Your task to perform on an android device: Go to sound settings Image 0: 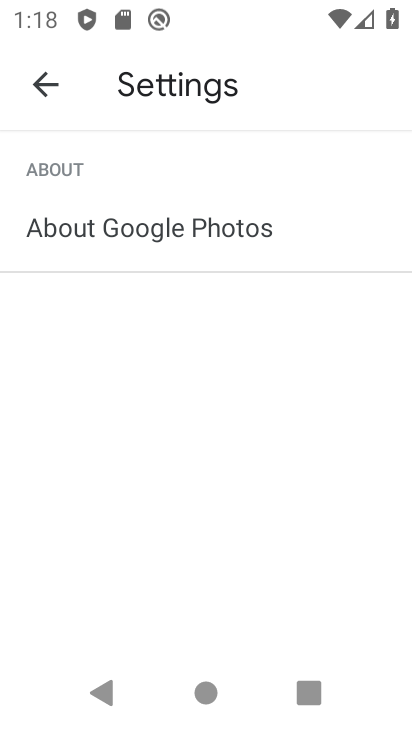
Step 0: press home button
Your task to perform on an android device: Go to sound settings Image 1: 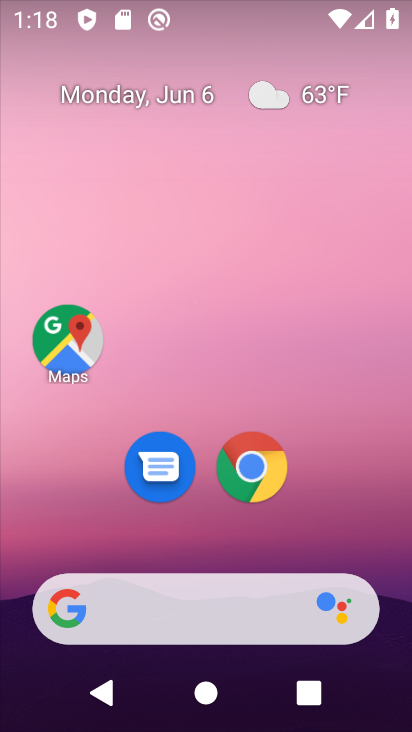
Step 1: drag from (395, 633) to (258, 73)
Your task to perform on an android device: Go to sound settings Image 2: 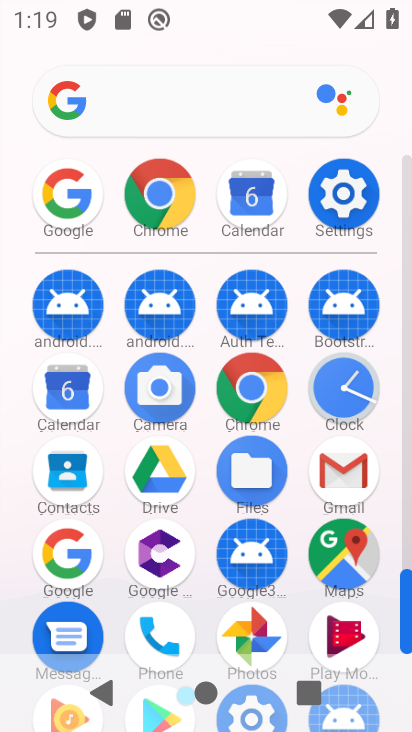
Step 2: click (342, 205)
Your task to perform on an android device: Go to sound settings Image 3: 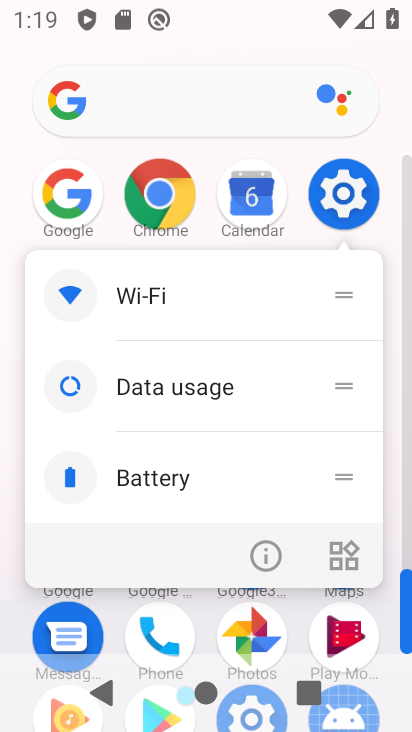
Step 3: click (320, 197)
Your task to perform on an android device: Go to sound settings Image 4: 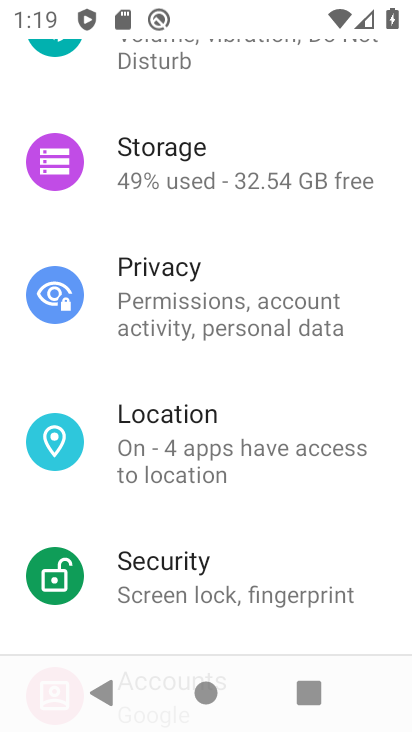
Step 4: drag from (231, 131) to (242, 533)
Your task to perform on an android device: Go to sound settings Image 5: 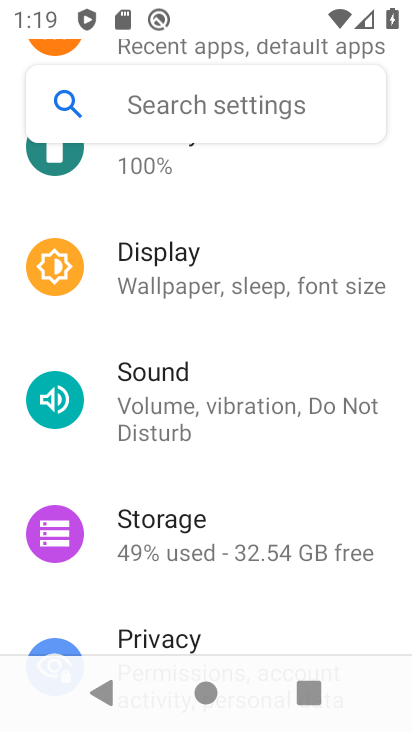
Step 5: click (228, 407)
Your task to perform on an android device: Go to sound settings Image 6: 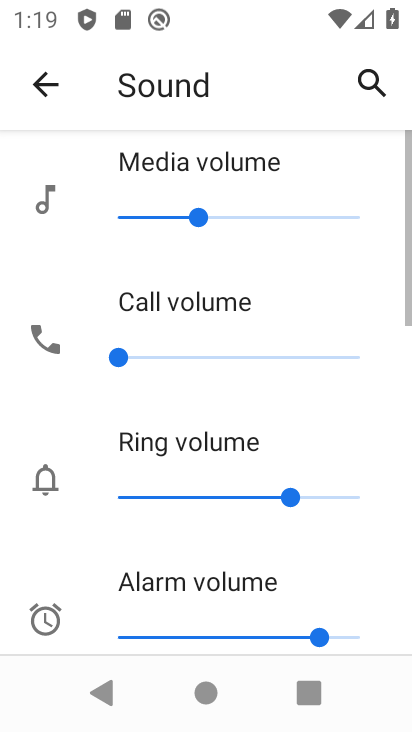
Step 6: task complete